Your task to perform on an android device: change keyboard looks Image 0: 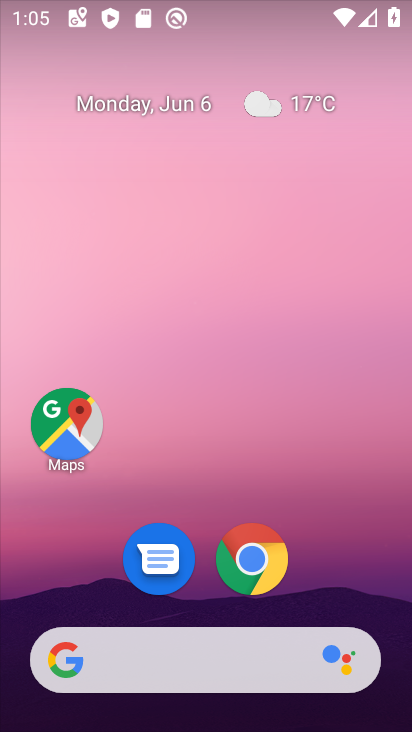
Step 0: drag from (337, 541) to (287, 214)
Your task to perform on an android device: change keyboard looks Image 1: 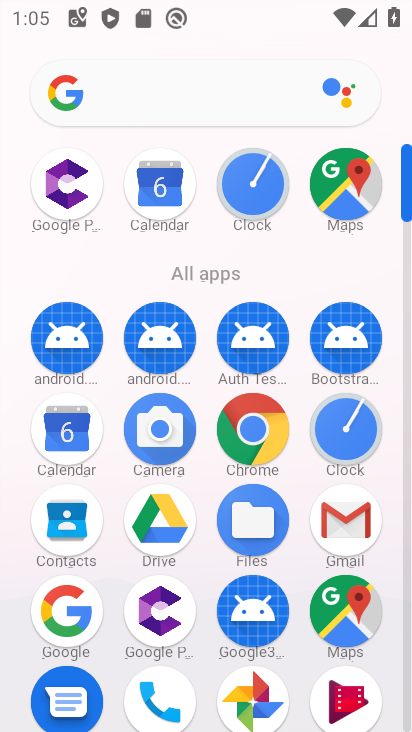
Step 1: drag from (196, 402) to (226, 282)
Your task to perform on an android device: change keyboard looks Image 2: 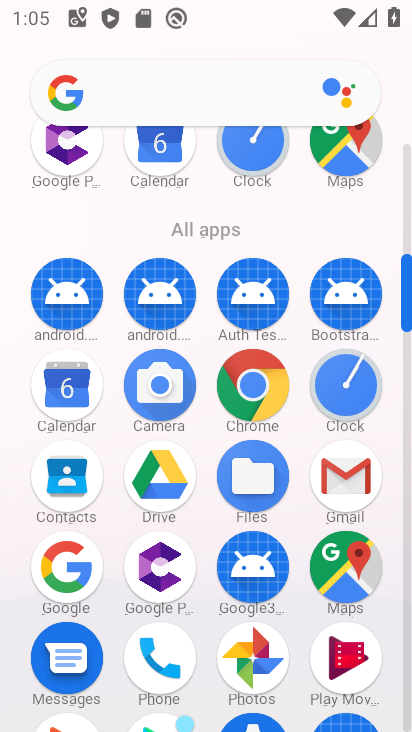
Step 2: drag from (225, 641) to (169, 294)
Your task to perform on an android device: change keyboard looks Image 3: 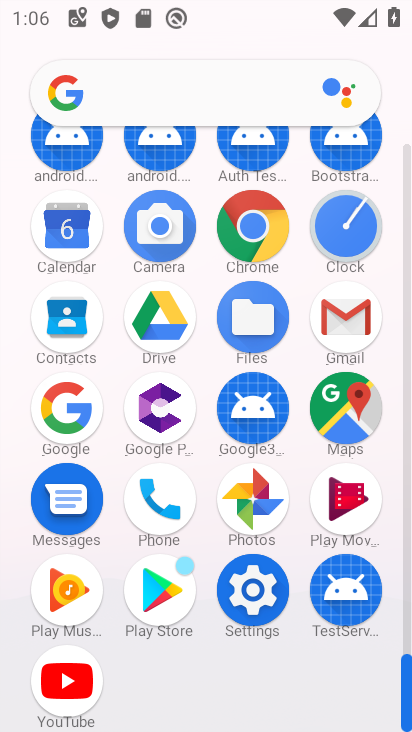
Step 3: click (269, 597)
Your task to perform on an android device: change keyboard looks Image 4: 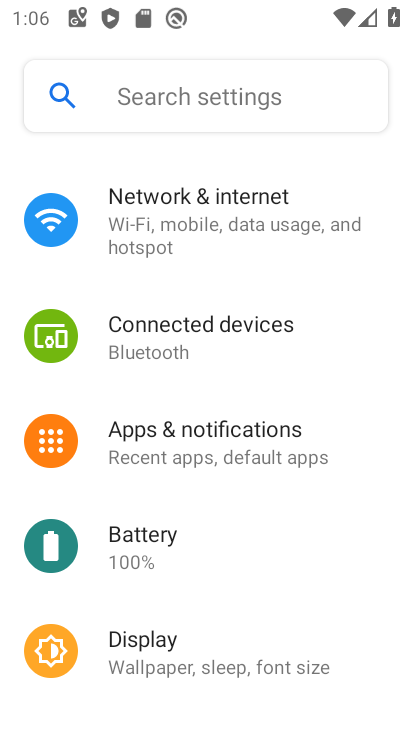
Step 4: drag from (340, 653) to (316, 249)
Your task to perform on an android device: change keyboard looks Image 5: 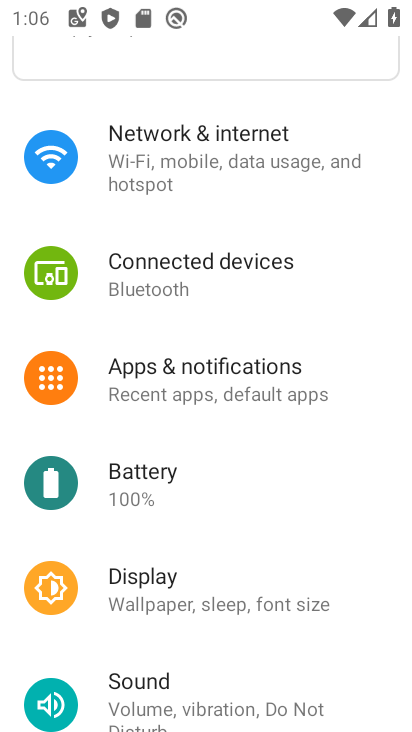
Step 5: drag from (357, 651) to (333, 244)
Your task to perform on an android device: change keyboard looks Image 6: 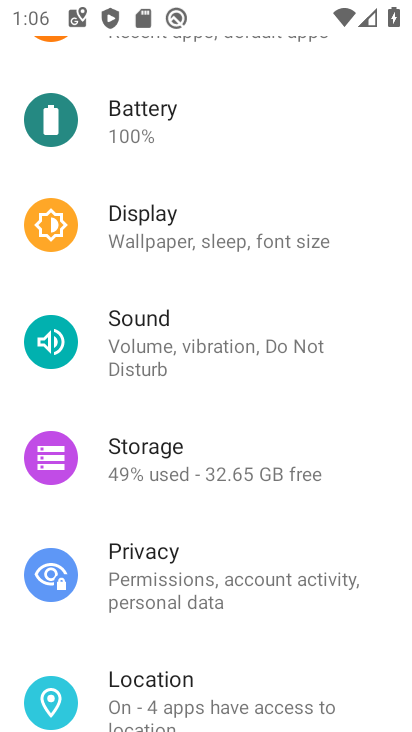
Step 6: drag from (349, 628) to (307, 208)
Your task to perform on an android device: change keyboard looks Image 7: 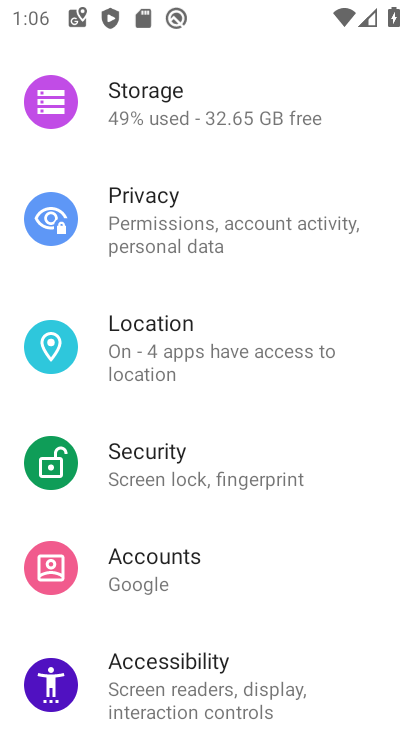
Step 7: drag from (320, 608) to (298, 251)
Your task to perform on an android device: change keyboard looks Image 8: 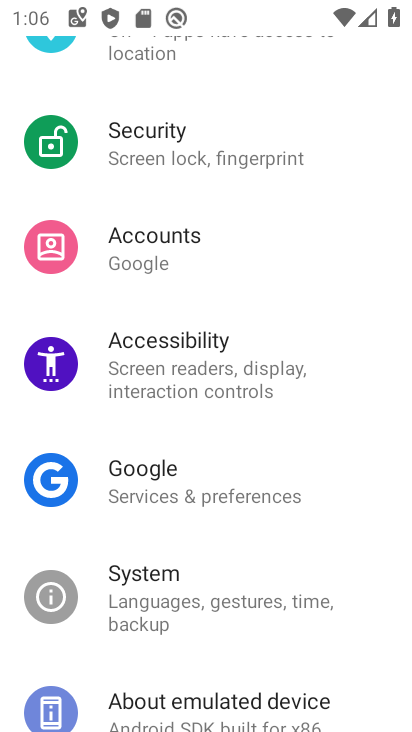
Step 8: drag from (294, 580) to (295, 225)
Your task to perform on an android device: change keyboard looks Image 9: 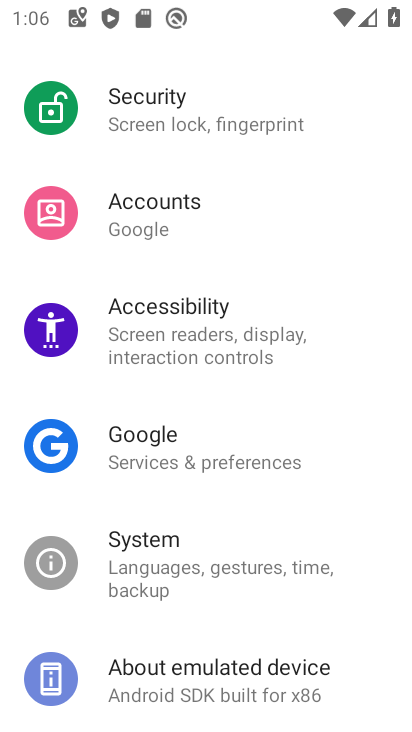
Step 9: click (278, 574)
Your task to perform on an android device: change keyboard looks Image 10: 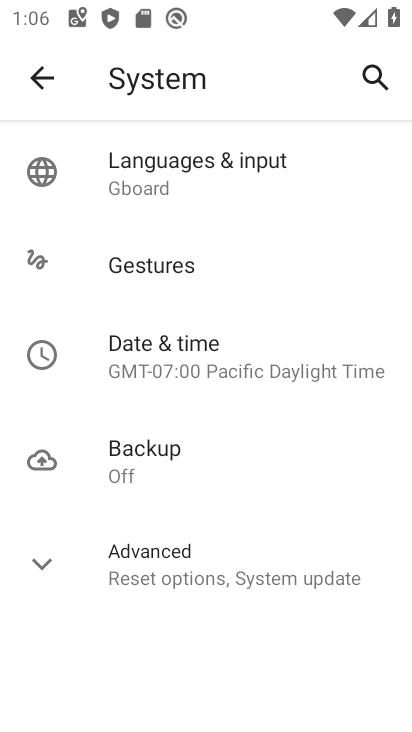
Step 10: click (170, 176)
Your task to perform on an android device: change keyboard looks Image 11: 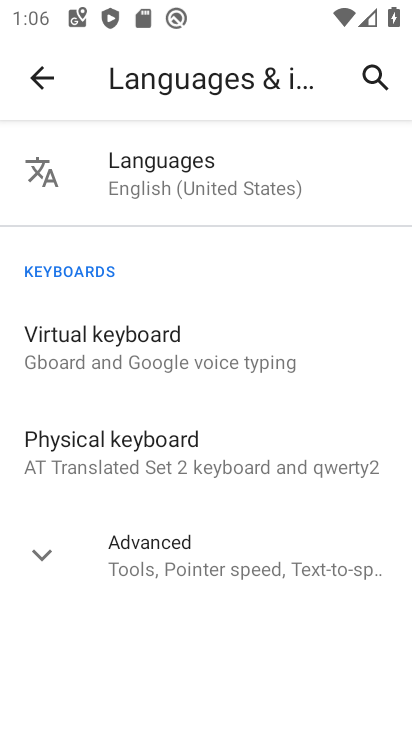
Step 11: click (190, 337)
Your task to perform on an android device: change keyboard looks Image 12: 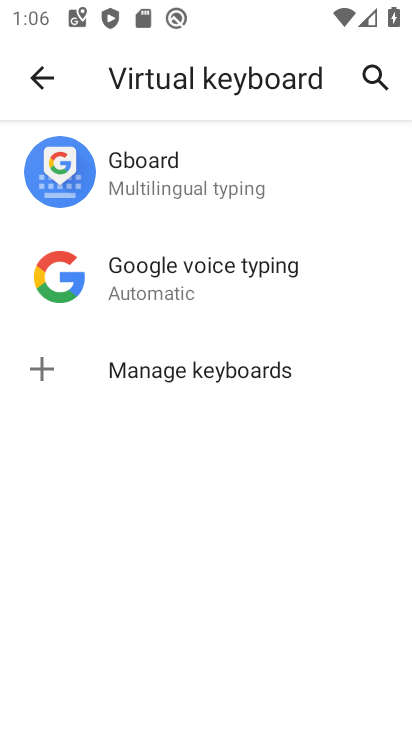
Step 12: click (224, 196)
Your task to perform on an android device: change keyboard looks Image 13: 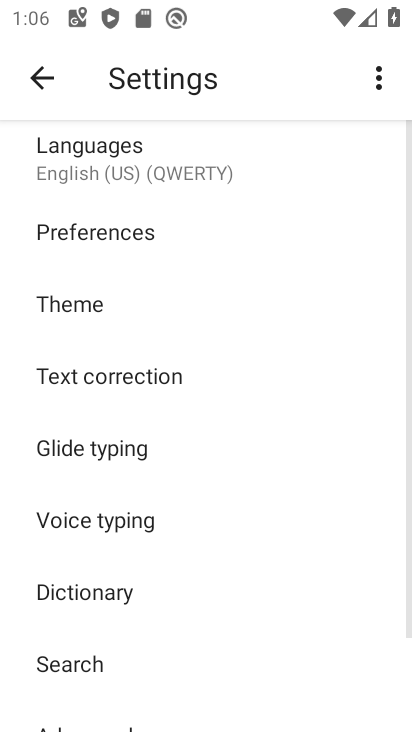
Step 13: click (147, 308)
Your task to perform on an android device: change keyboard looks Image 14: 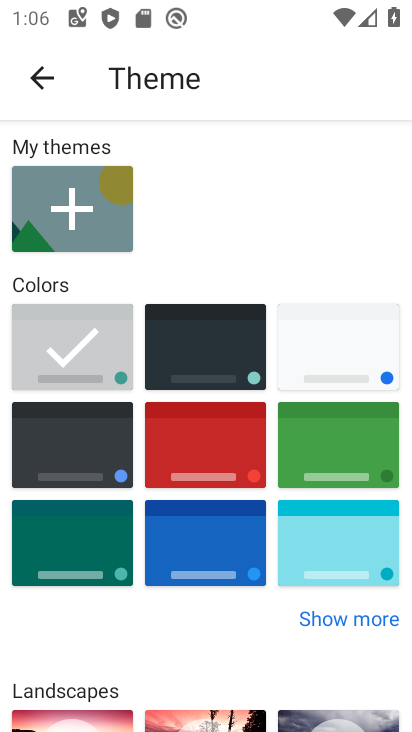
Step 14: click (222, 362)
Your task to perform on an android device: change keyboard looks Image 15: 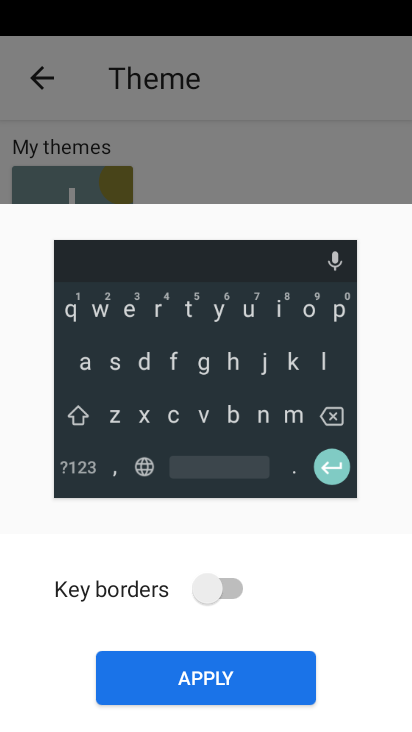
Step 15: click (212, 688)
Your task to perform on an android device: change keyboard looks Image 16: 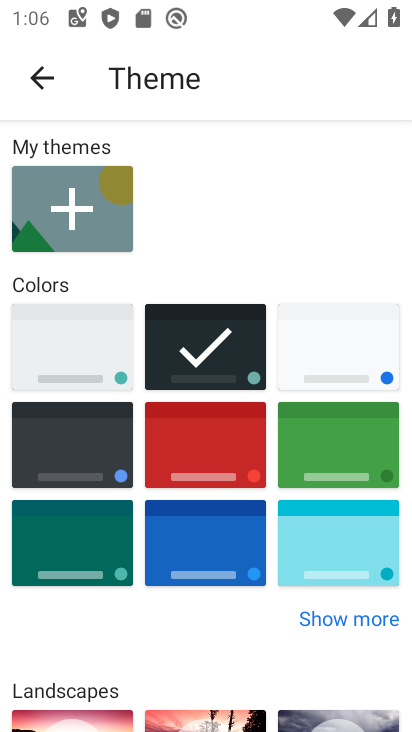
Step 16: task complete